Your task to perform on an android device: Open calendar and show me the third week of next month Image 0: 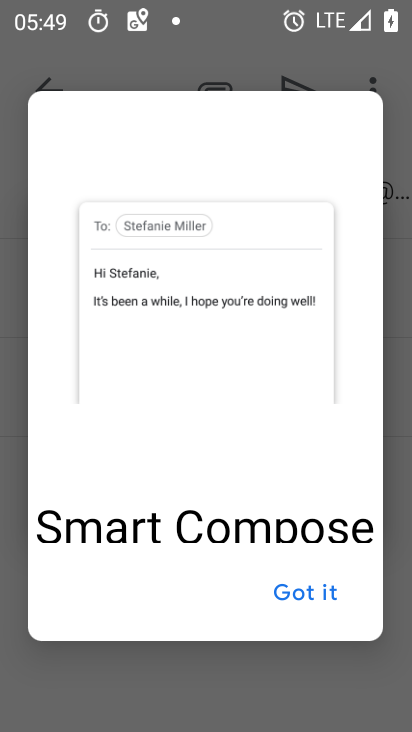
Step 0: press home button
Your task to perform on an android device: Open calendar and show me the third week of next month Image 1: 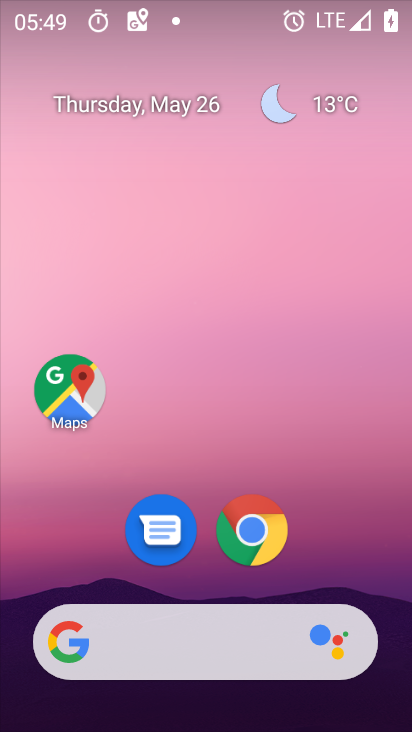
Step 1: drag from (225, 600) to (287, 56)
Your task to perform on an android device: Open calendar and show me the third week of next month Image 2: 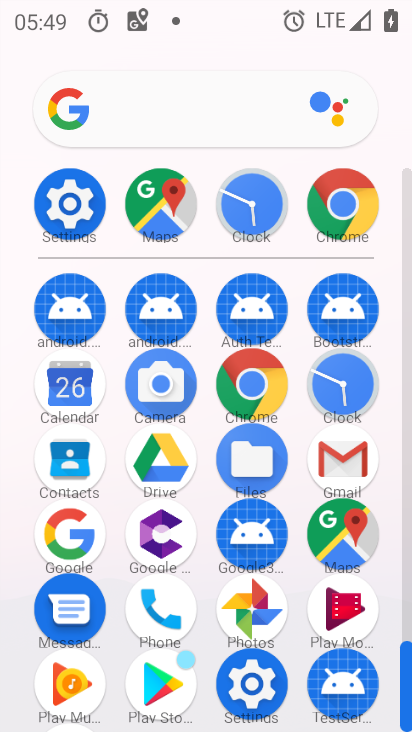
Step 2: click (71, 390)
Your task to perform on an android device: Open calendar and show me the third week of next month Image 3: 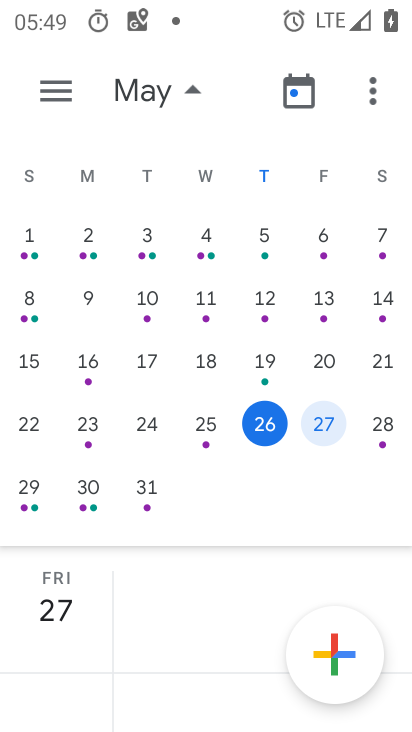
Step 3: drag from (378, 375) to (5, 349)
Your task to perform on an android device: Open calendar and show me the third week of next month Image 4: 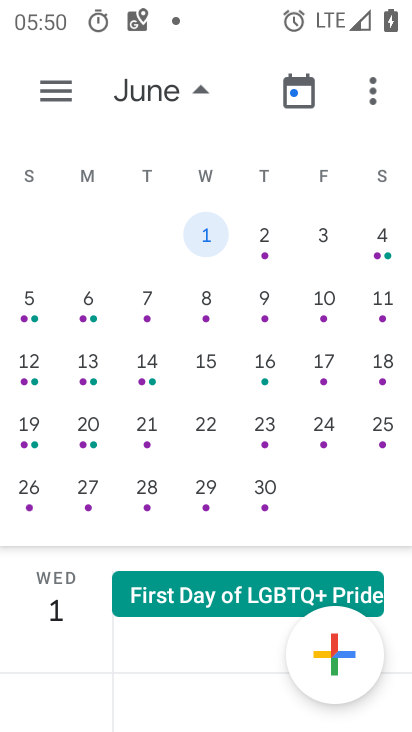
Step 4: click (274, 417)
Your task to perform on an android device: Open calendar and show me the third week of next month Image 5: 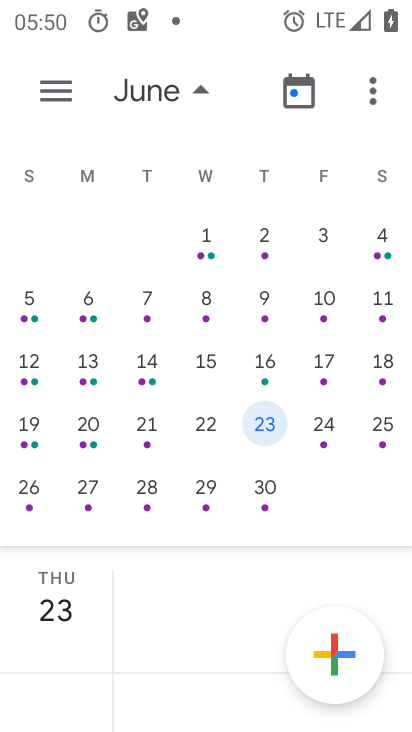
Step 5: click (266, 368)
Your task to perform on an android device: Open calendar and show me the third week of next month Image 6: 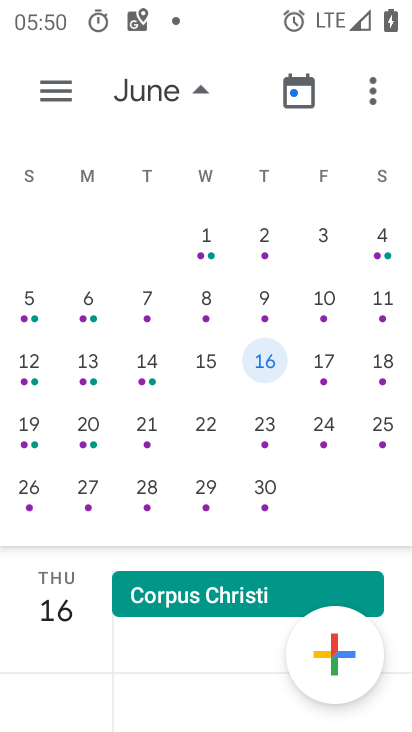
Step 6: click (62, 91)
Your task to perform on an android device: Open calendar and show me the third week of next month Image 7: 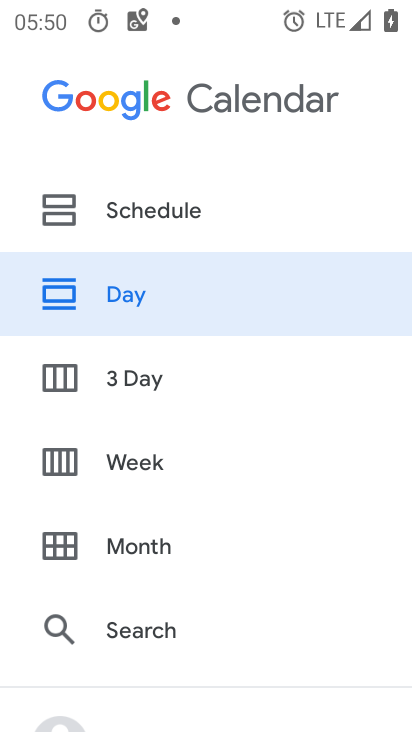
Step 7: click (140, 459)
Your task to perform on an android device: Open calendar and show me the third week of next month Image 8: 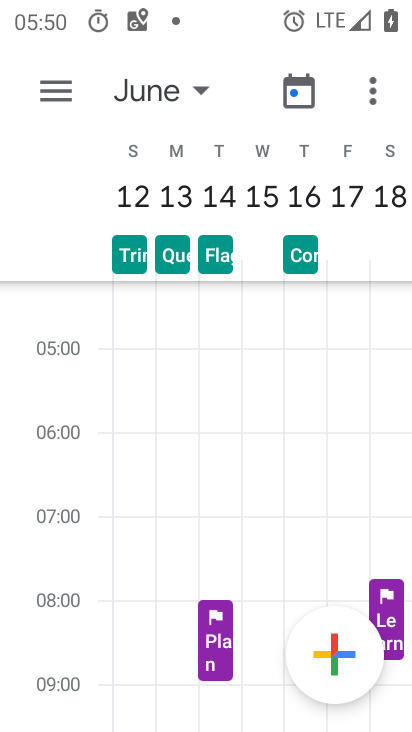
Step 8: task complete